Your task to perform on an android device: toggle translation in the chrome app Image 0: 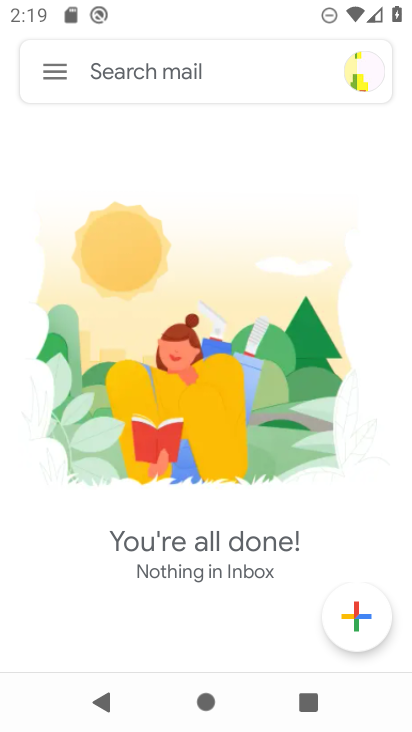
Step 0: press home button
Your task to perform on an android device: toggle translation in the chrome app Image 1: 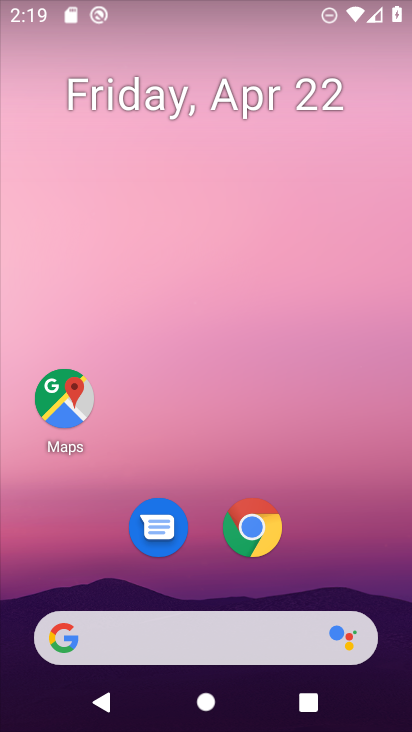
Step 1: drag from (332, 353) to (350, 105)
Your task to perform on an android device: toggle translation in the chrome app Image 2: 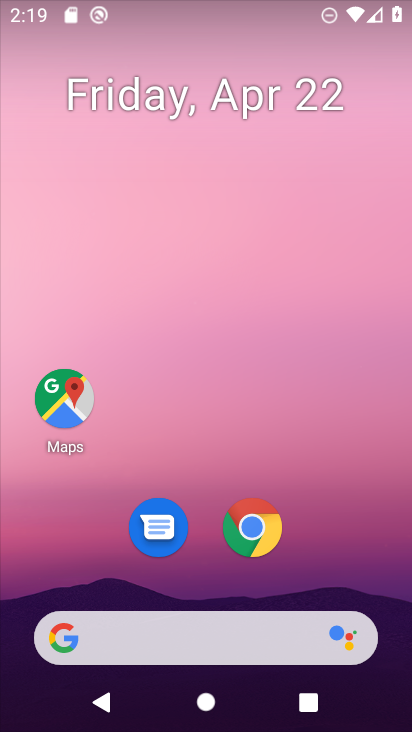
Step 2: drag from (355, 545) to (356, 161)
Your task to perform on an android device: toggle translation in the chrome app Image 3: 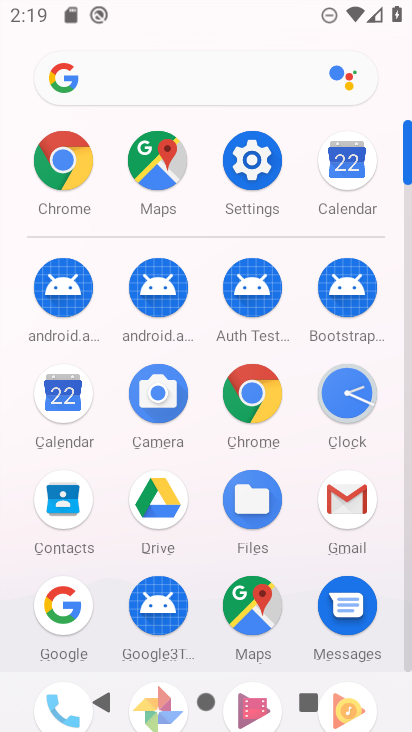
Step 3: click (258, 397)
Your task to perform on an android device: toggle translation in the chrome app Image 4: 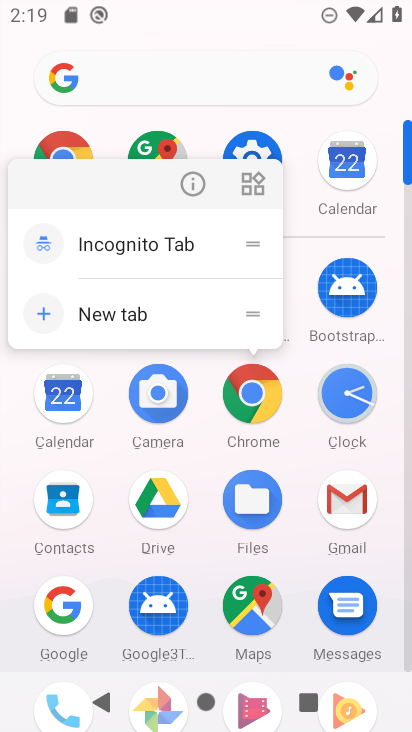
Step 4: click (264, 402)
Your task to perform on an android device: toggle translation in the chrome app Image 5: 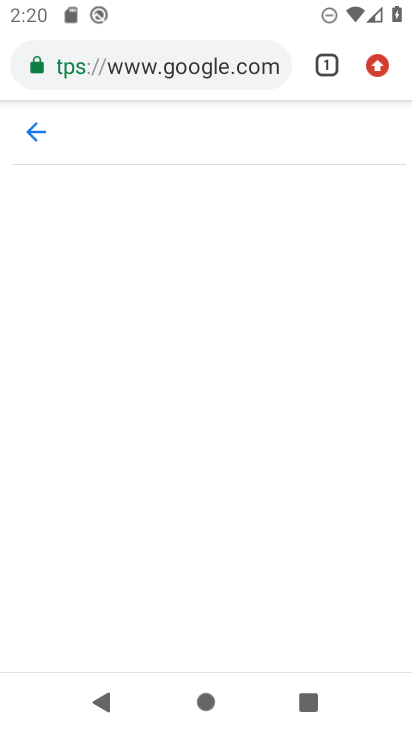
Step 5: click (376, 59)
Your task to perform on an android device: toggle translation in the chrome app Image 6: 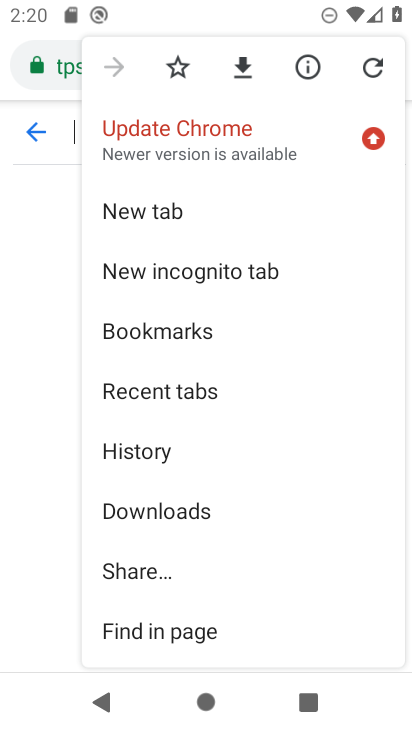
Step 6: drag from (228, 566) to (244, 251)
Your task to perform on an android device: toggle translation in the chrome app Image 7: 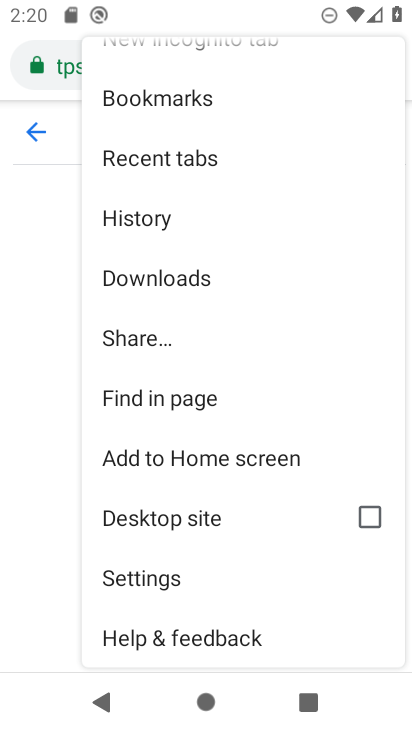
Step 7: click (162, 573)
Your task to perform on an android device: toggle translation in the chrome app Image 8: 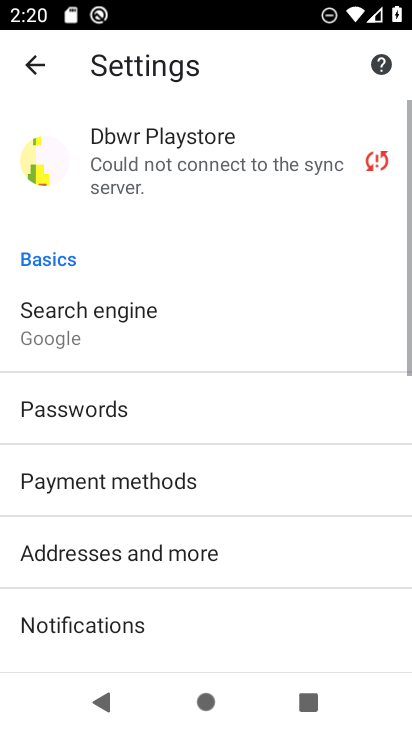
Step 8: drag from (282, 567) to (326, 220)
Your task to perform on an android device: toggle translation in the chrome app Image 9: 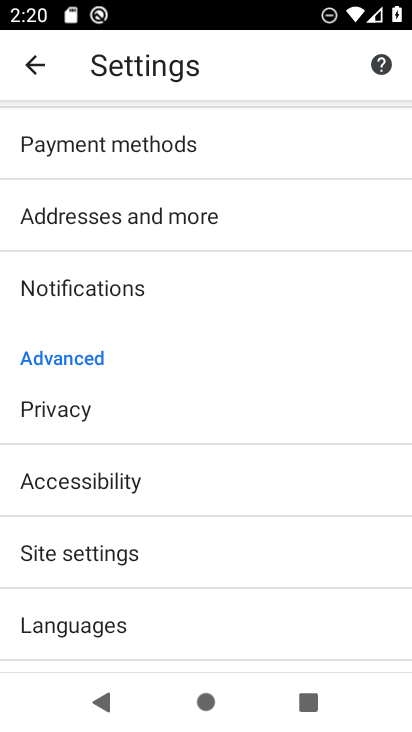
Step 9: click (95, 625)
Your task to perform on an android device: toggle translation in the chrome app Image 10: 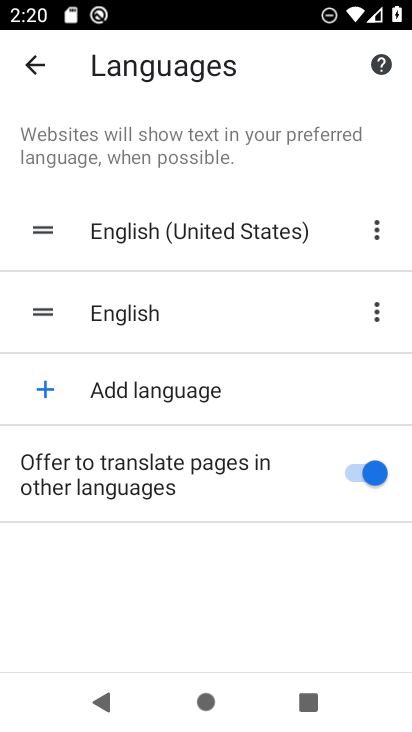
Step 10: click (359, 472)
Your task to perform on an android device: toggle translation in the chrome app Image 11: 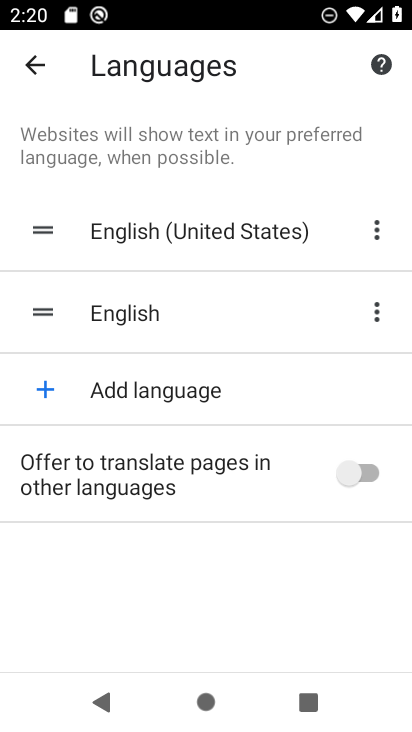
Step 11: task complete